Your task to perform on an android device: change notification settings in the gmail app Image 0: 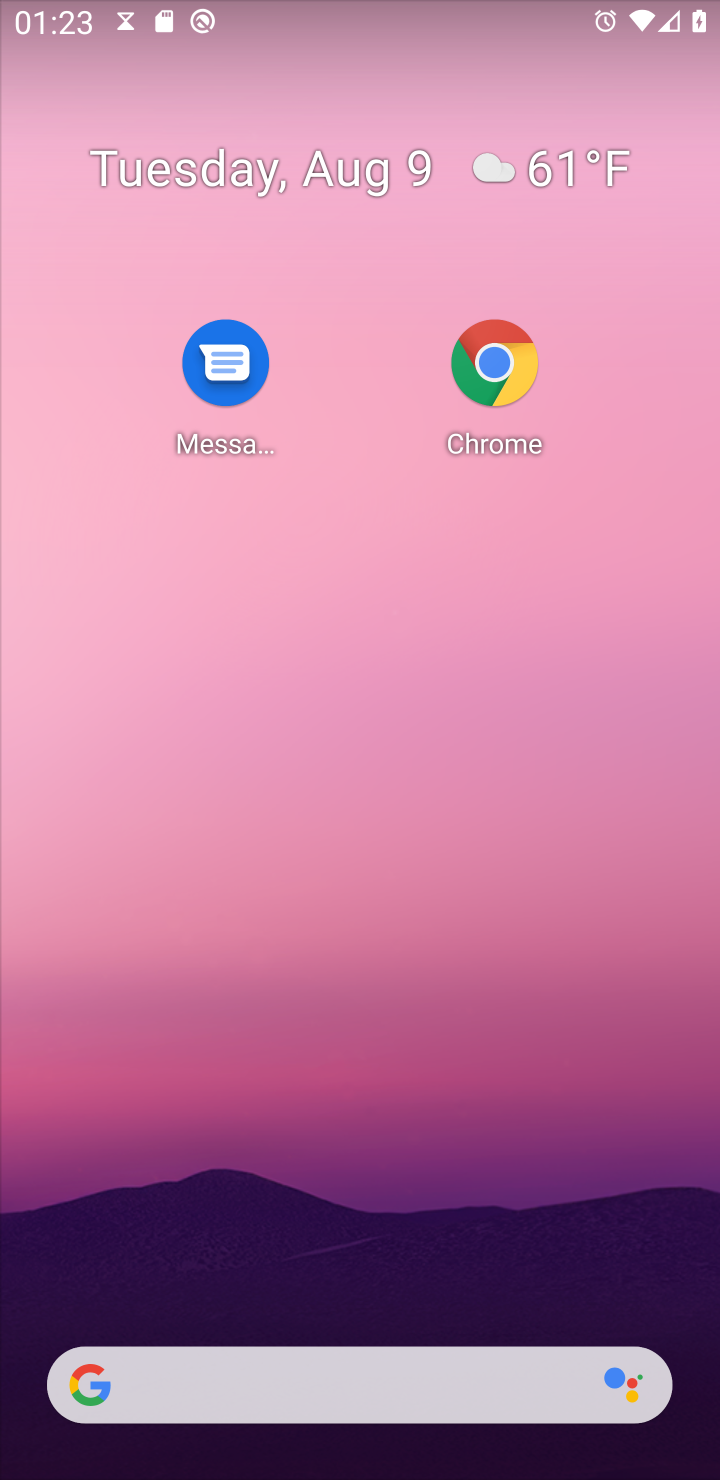
Step 0: drag from (247, 1225) to (344, 140)
Your task to perform on an android device: change notification settings in the gmail app Image 1: 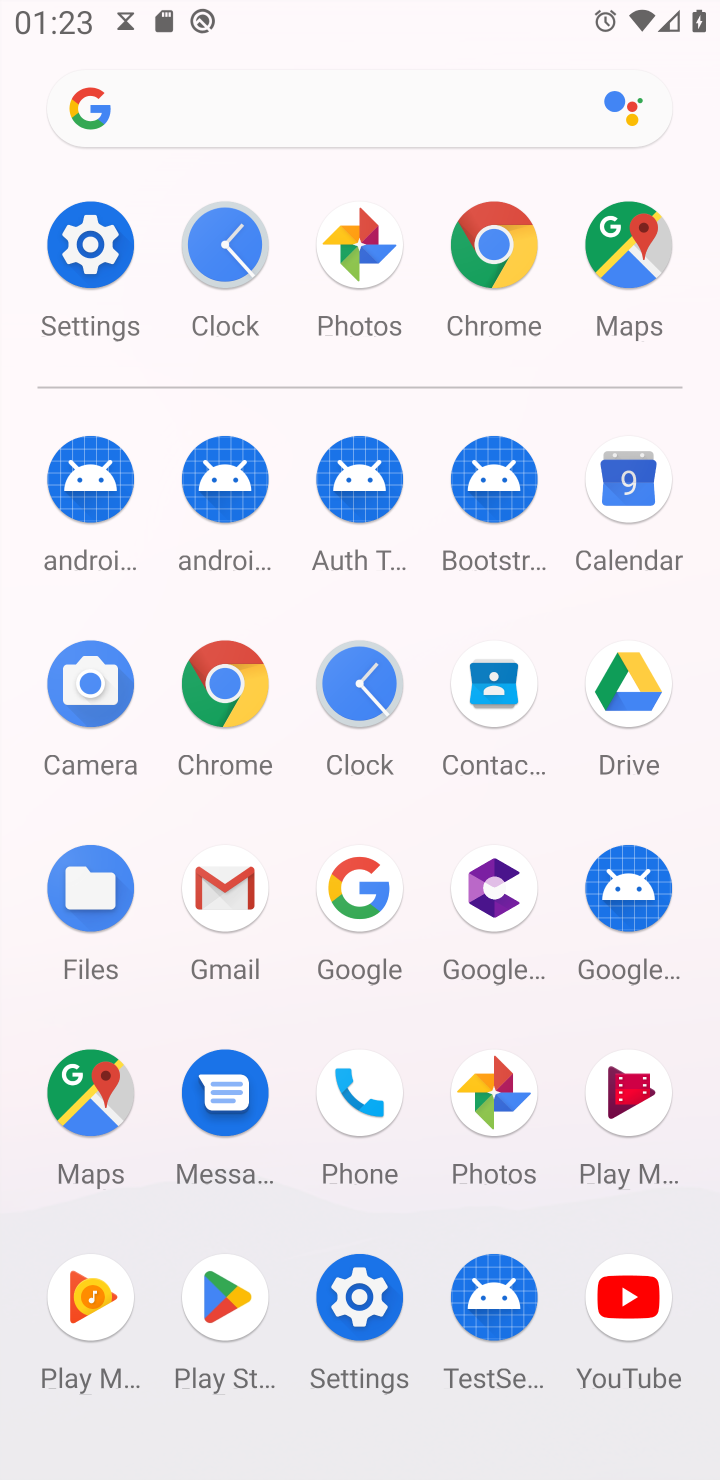
Step 1: click (117, 274)
Your task to perform on an android device: change notification settings in the gmail app Image 2: 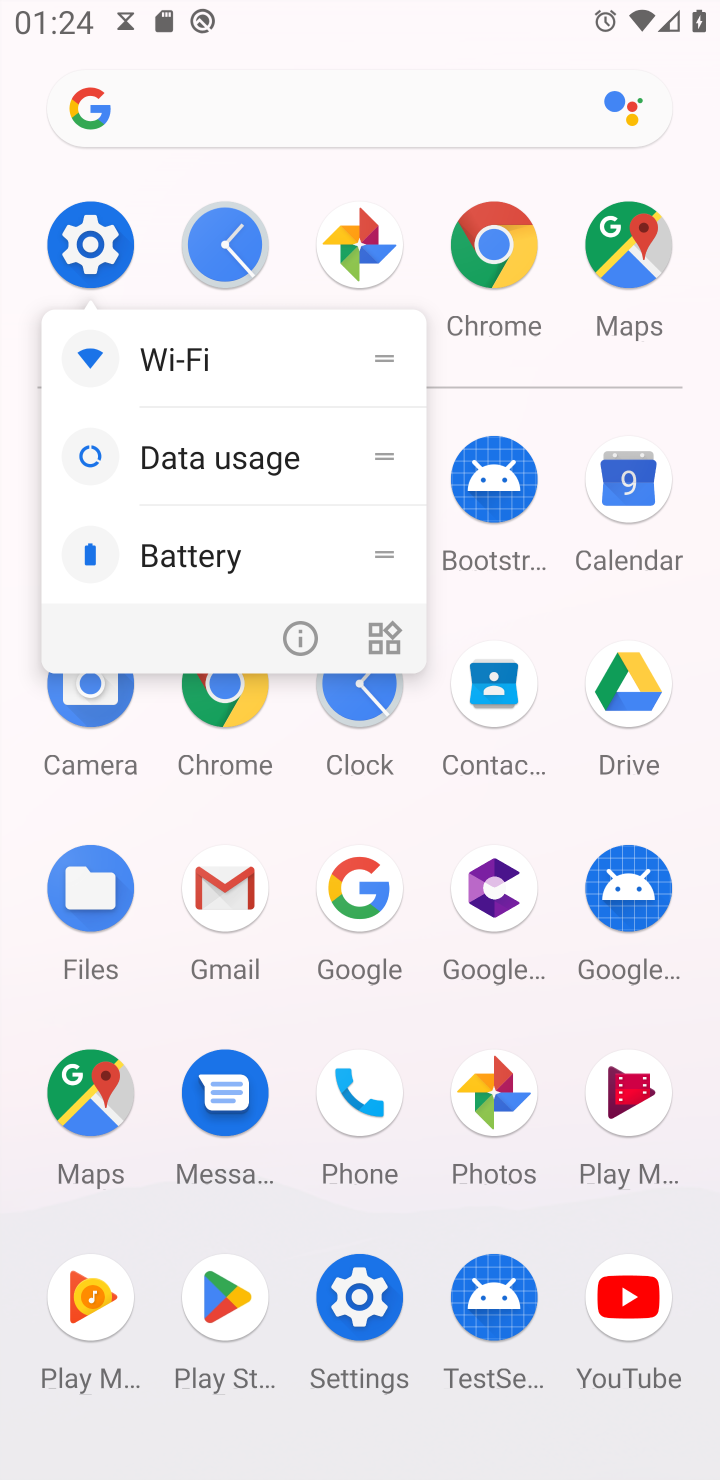
Step 2: click (99, 256)
Your task to perform on an android device: change notification settings in the gmail app Image 3: 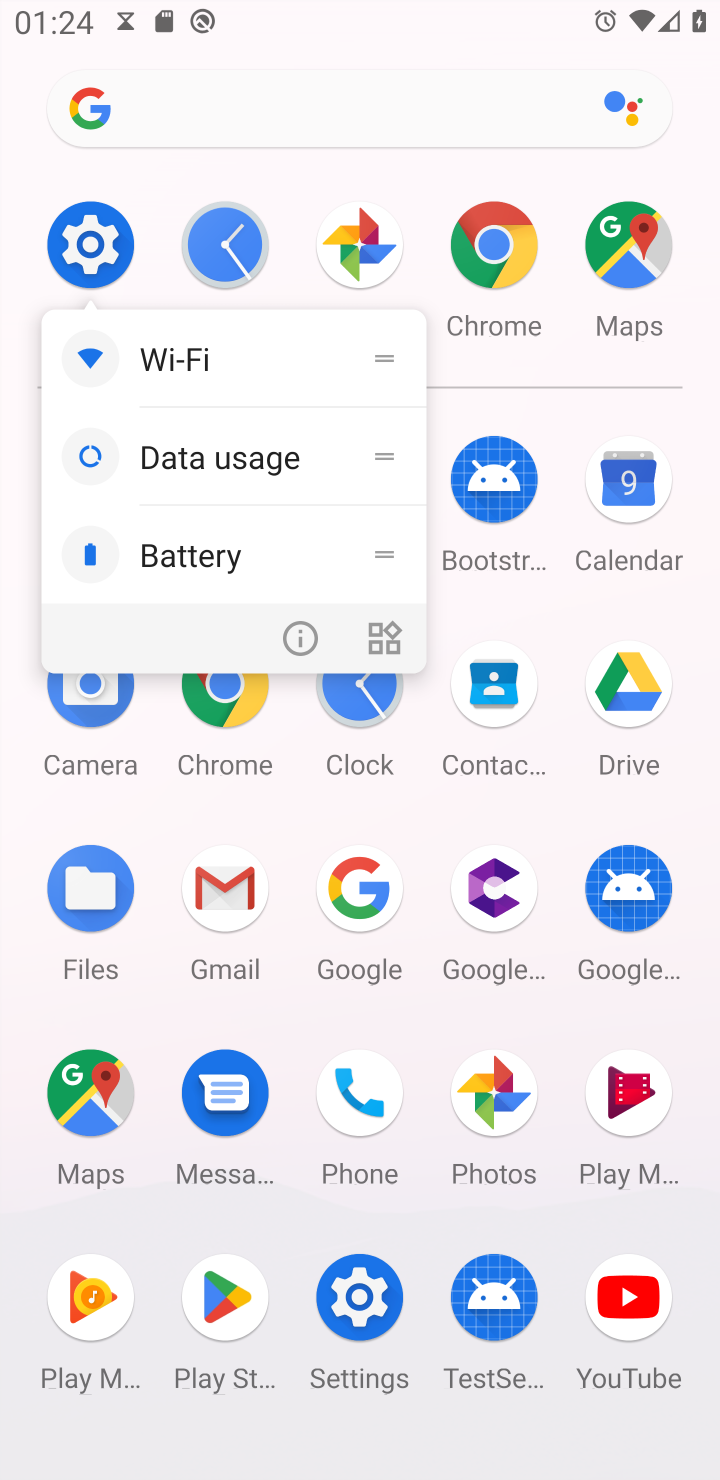
Step 3: click (77, 226)
Your task to perform on an android device: change notification settings in the gmail app Image 4: 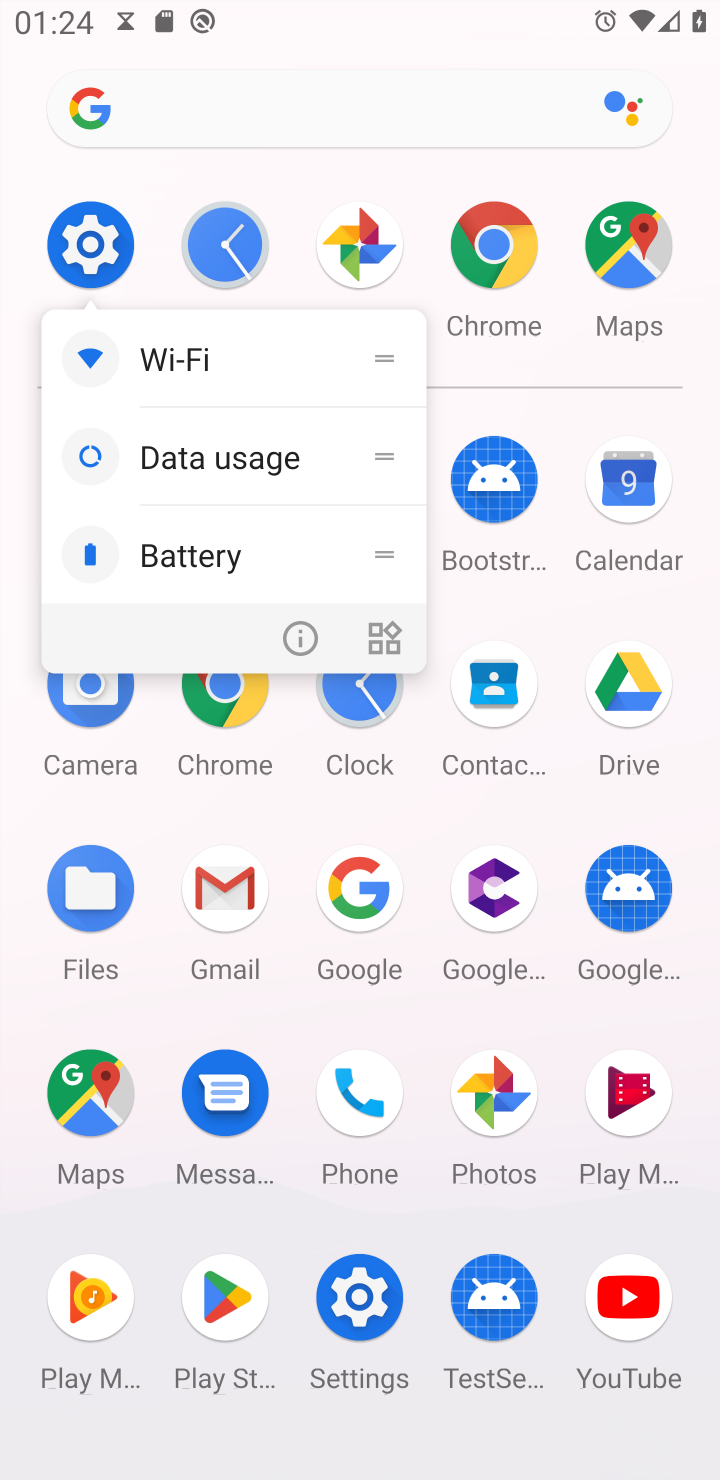
Step 4: click (77, 226)
Your task to perform on an android device: change notification settings in the gmail app Image 5: 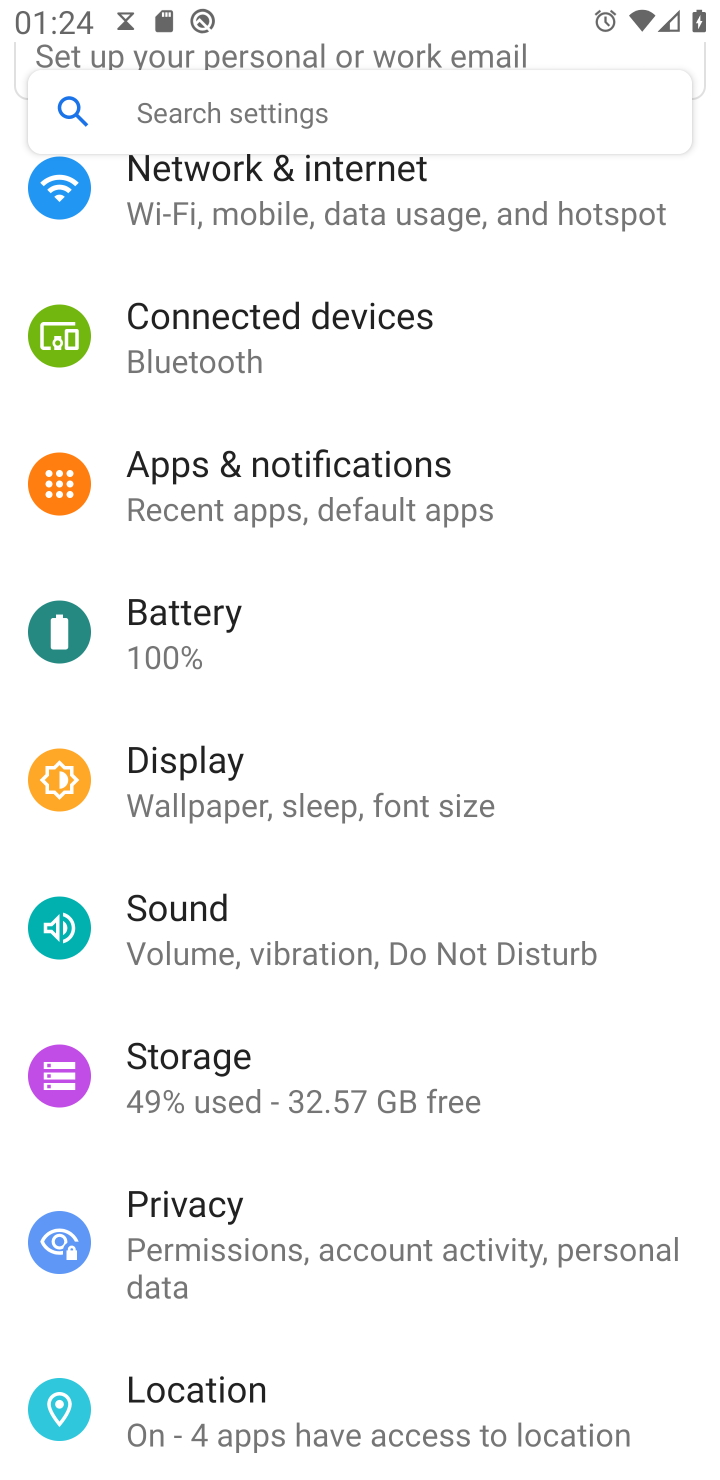
Step 5: click (273, 431)
Your task to perform on an android device: change notification settings in the gmail app Image 6: 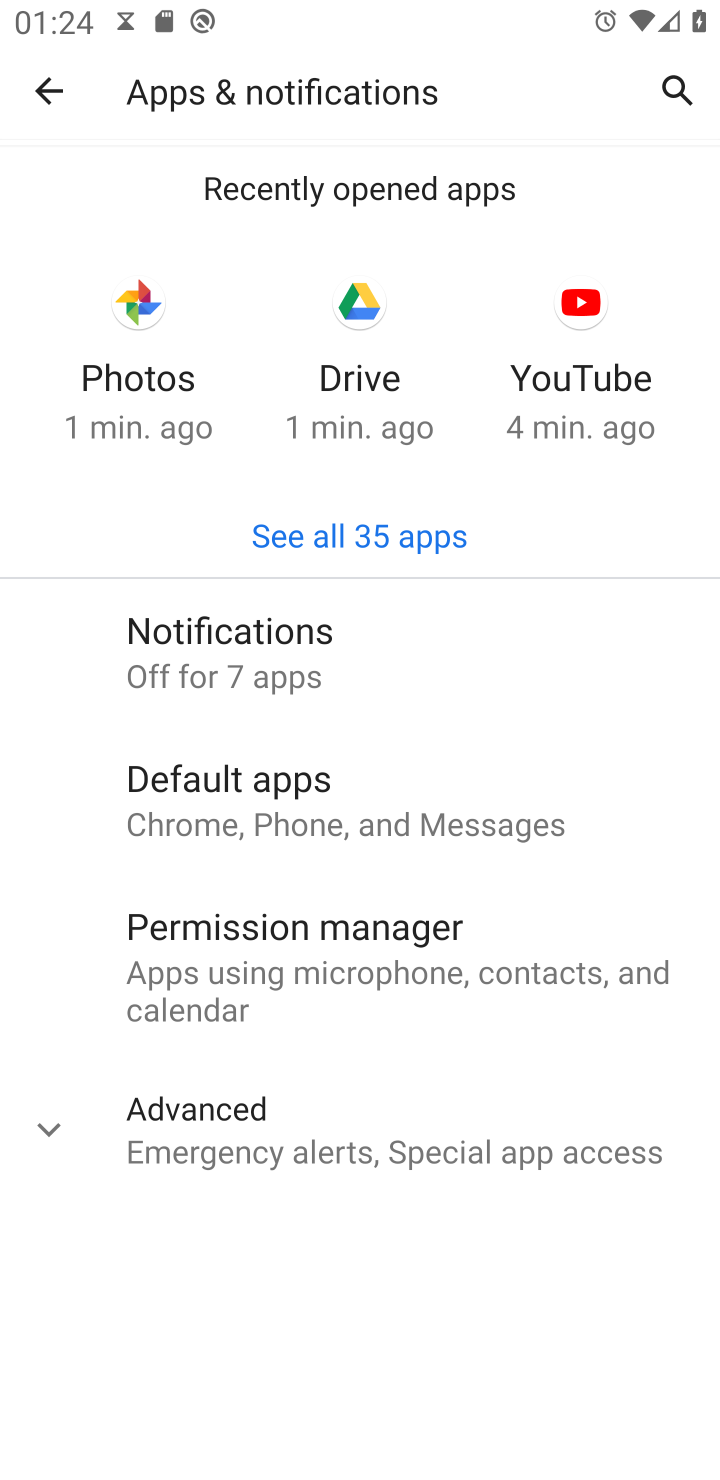
Step 6: click (327, 605)
Your task to perform on an android device: change notification settings in the gmail app Image 7: 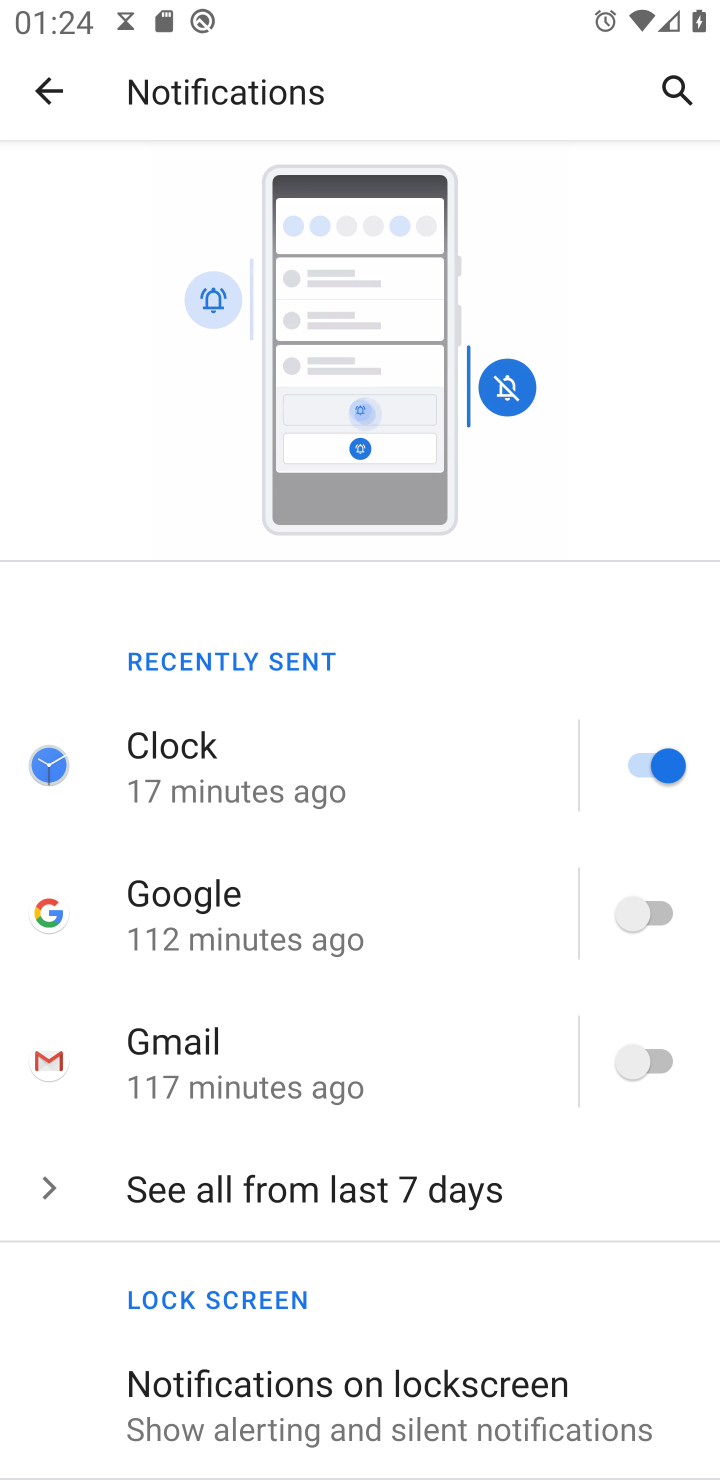
Step 7: click (301, 1184)
Your task to perform on an android device: change notification settings in the gmail app Image 8: 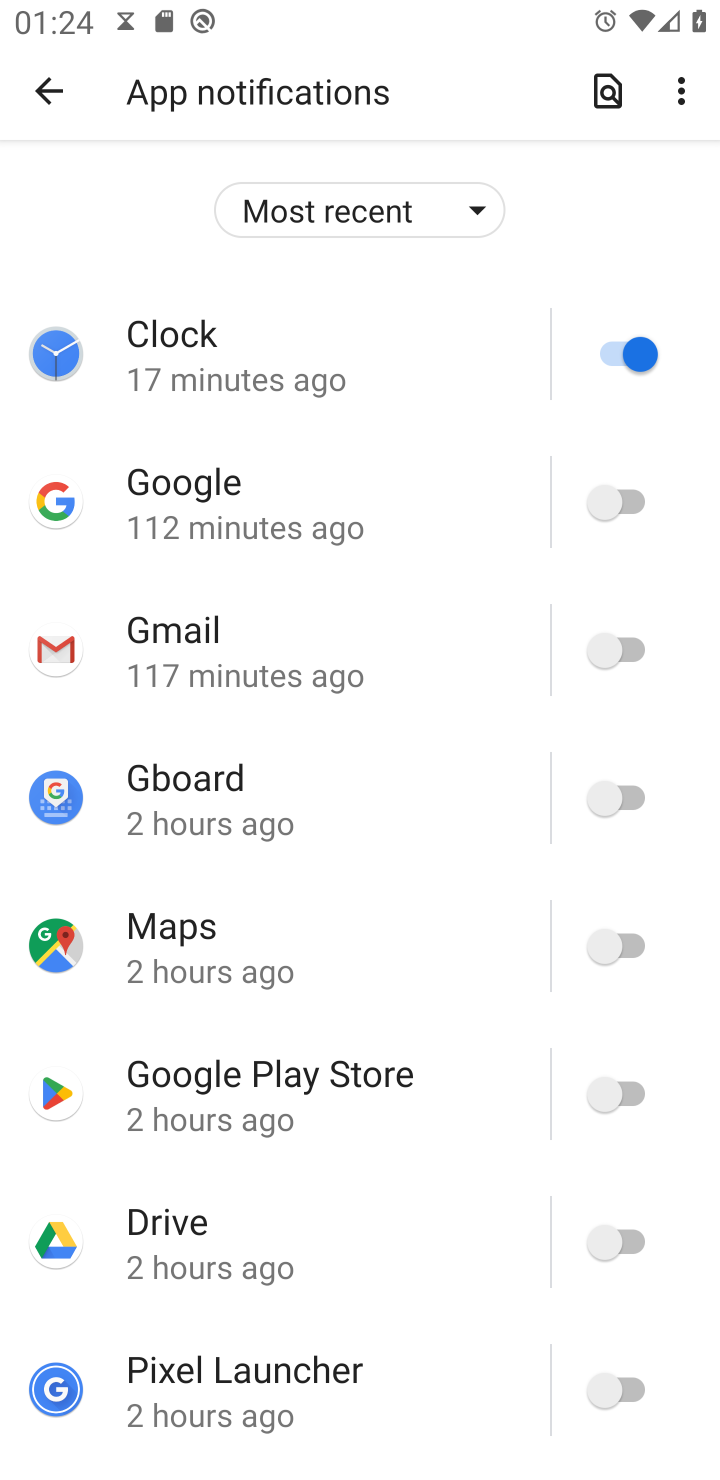
Step 8: click (631, 343)
Your task to perform on an android device: change notification settings in the gmail app Image 9: 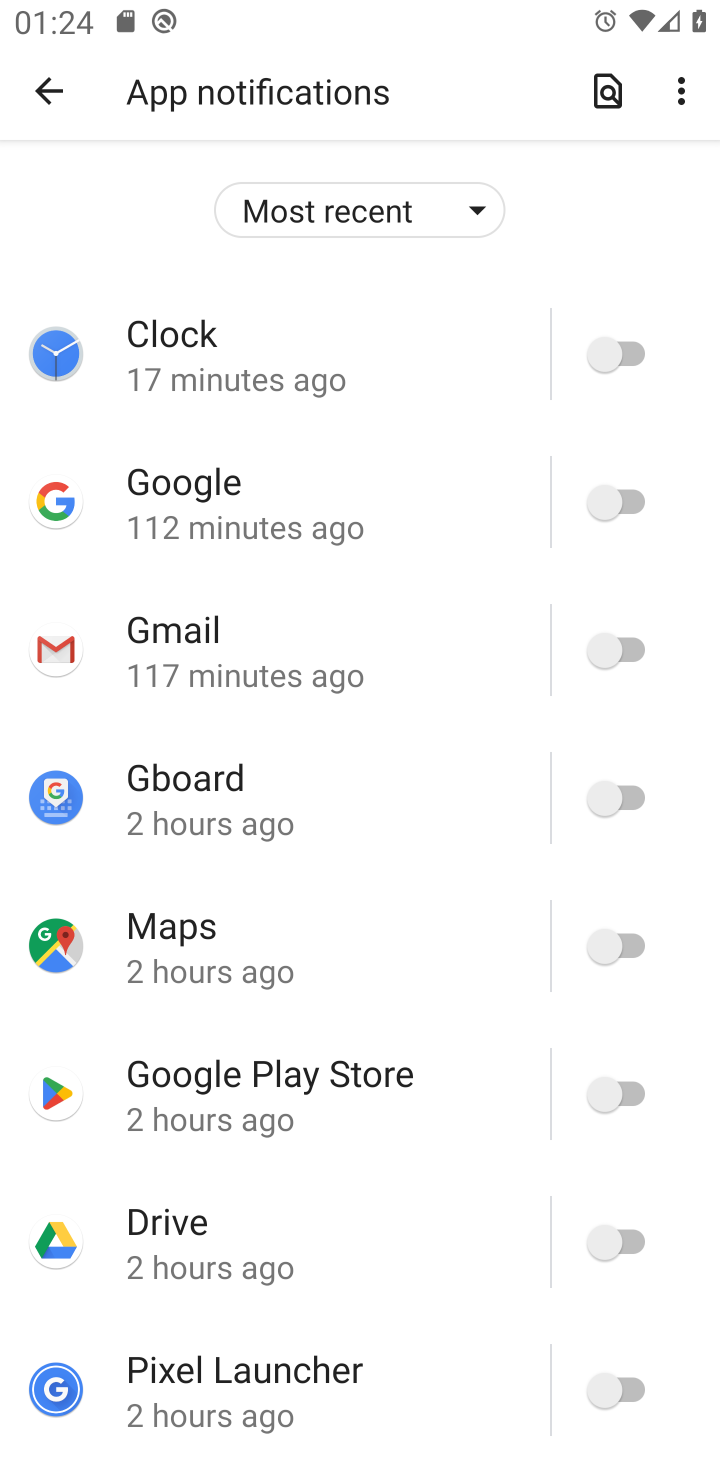
Step 9: click (627, 500)
Your task to perform on an android device: change notification settings in the gmail app Image 10: 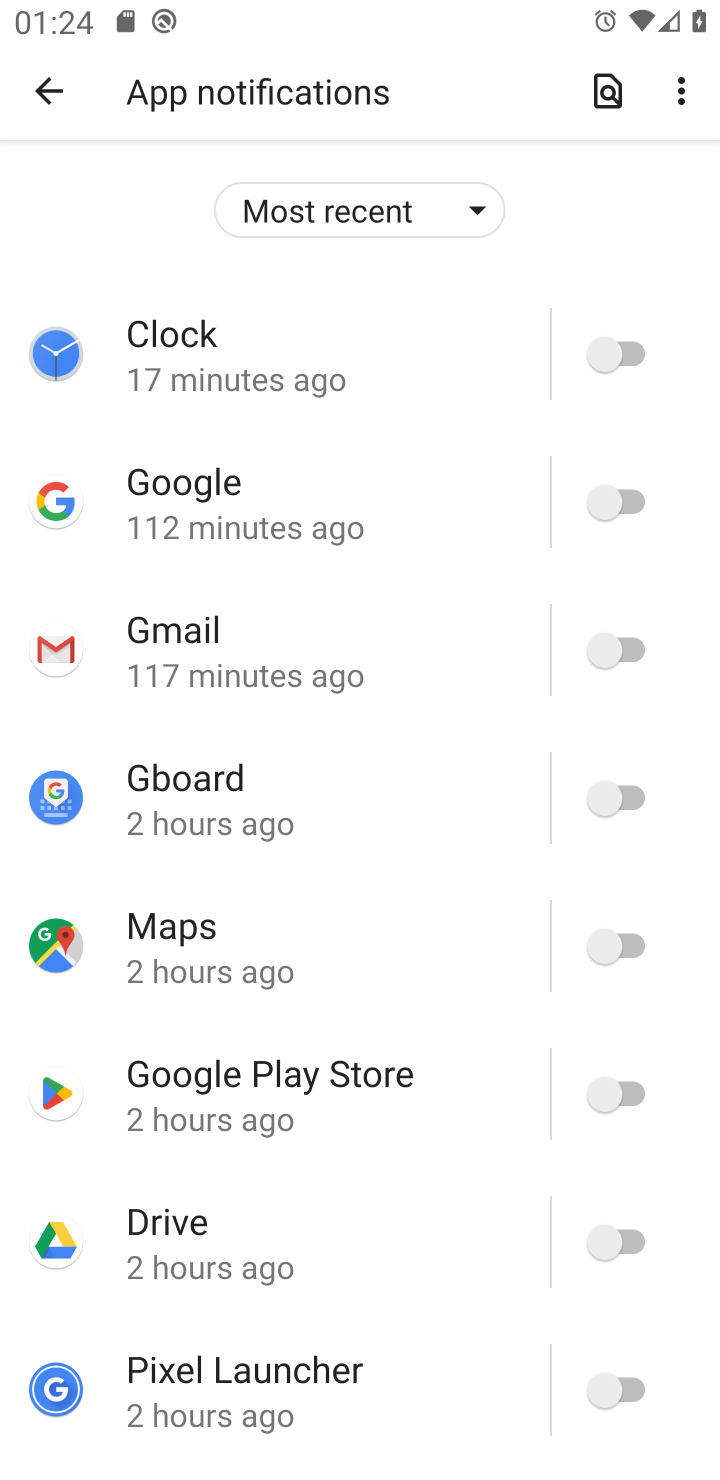
Step 10: click (635, 632)
Your task to perform on an android device: change notification settings in the gmail app Image 11: 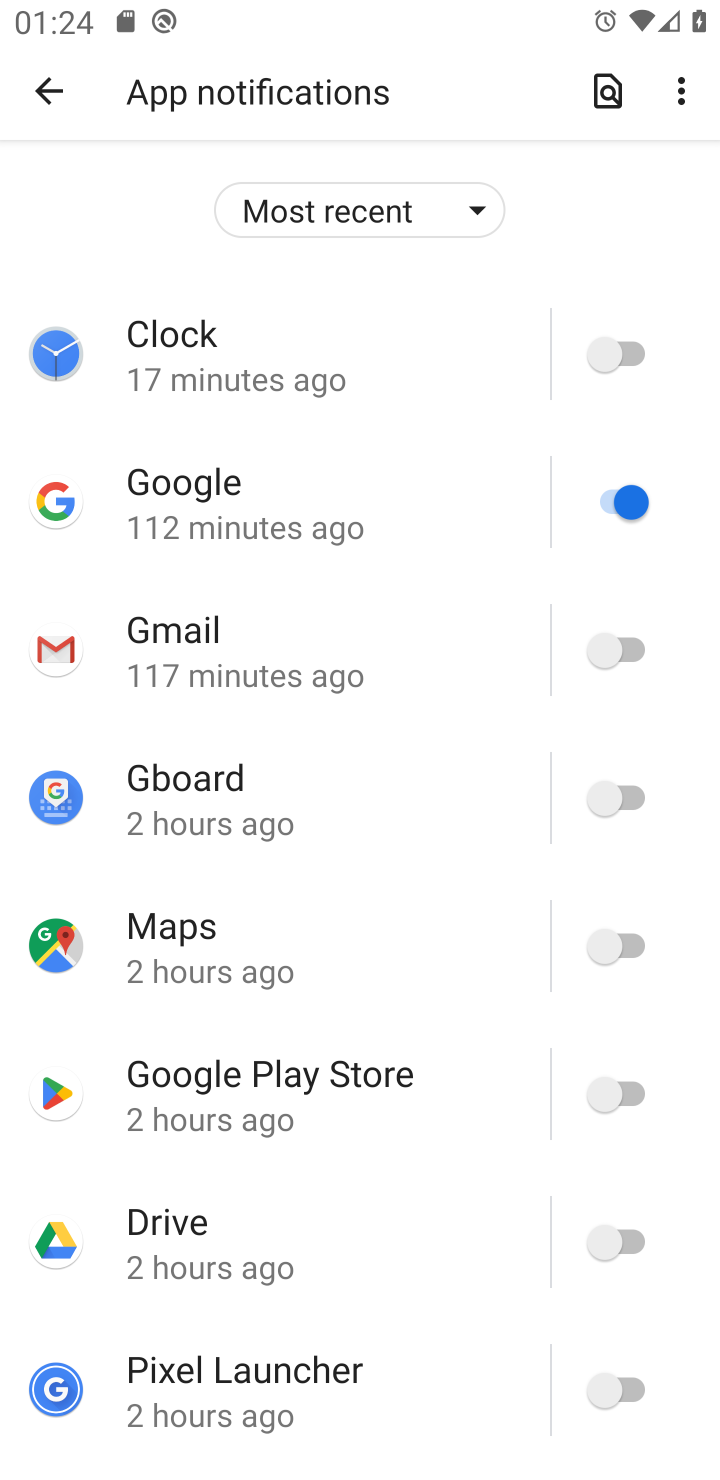
Step 11: click (640, 801)
Your task to perform on an android device: change notification settings in the gmail app Image 12: 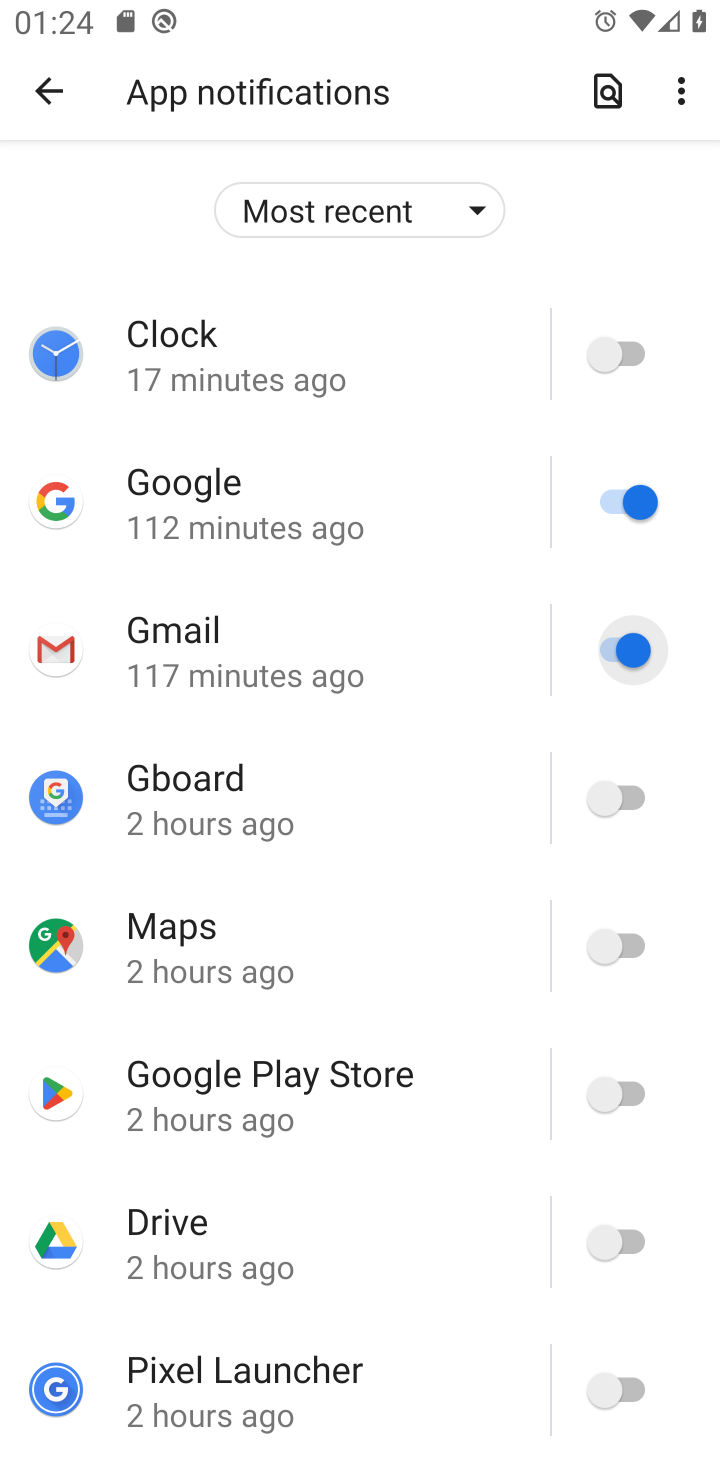
Step 12: click (635, 957)
Your task to perform on an android device: change notification settings in the gmail app Image 13: 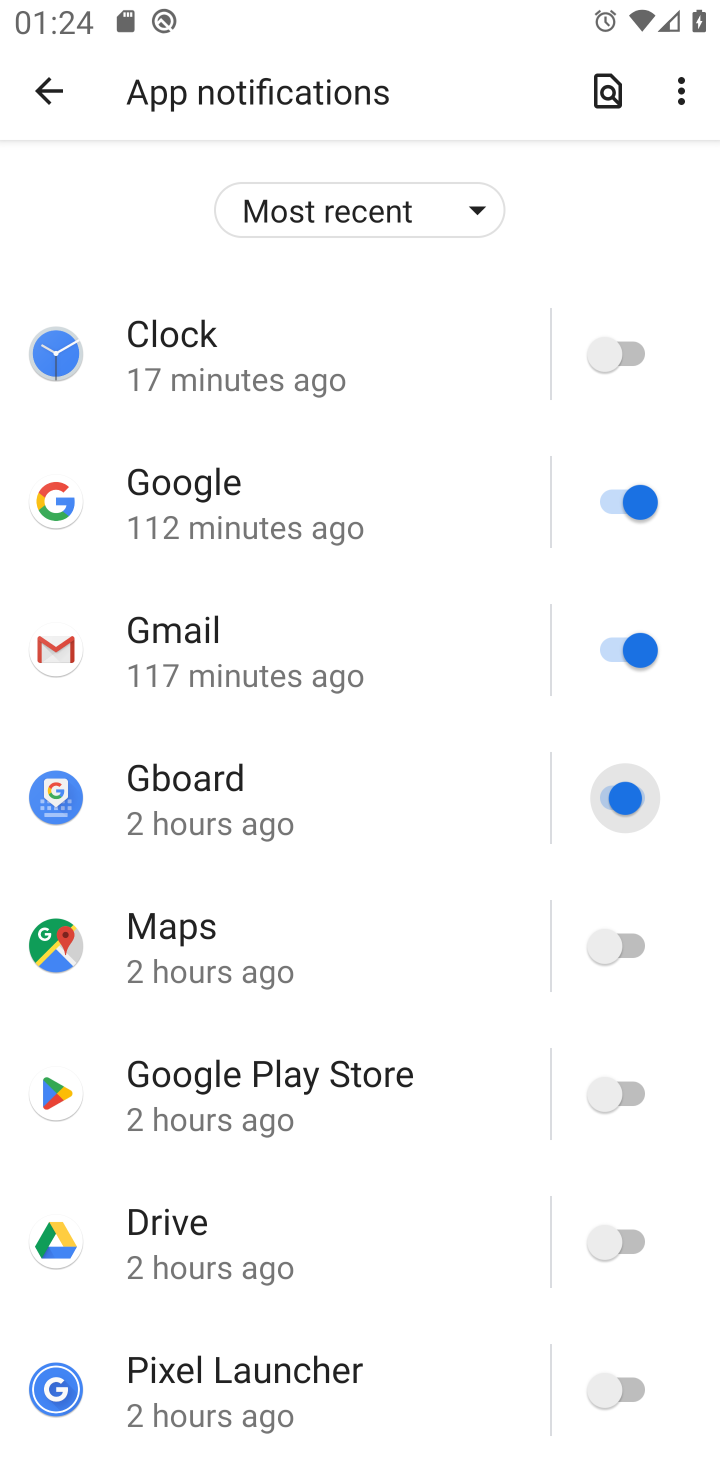
Step 13: click (624, 1057)
Your task to perform on an android device: change notification settings in the gmail app Image 14: 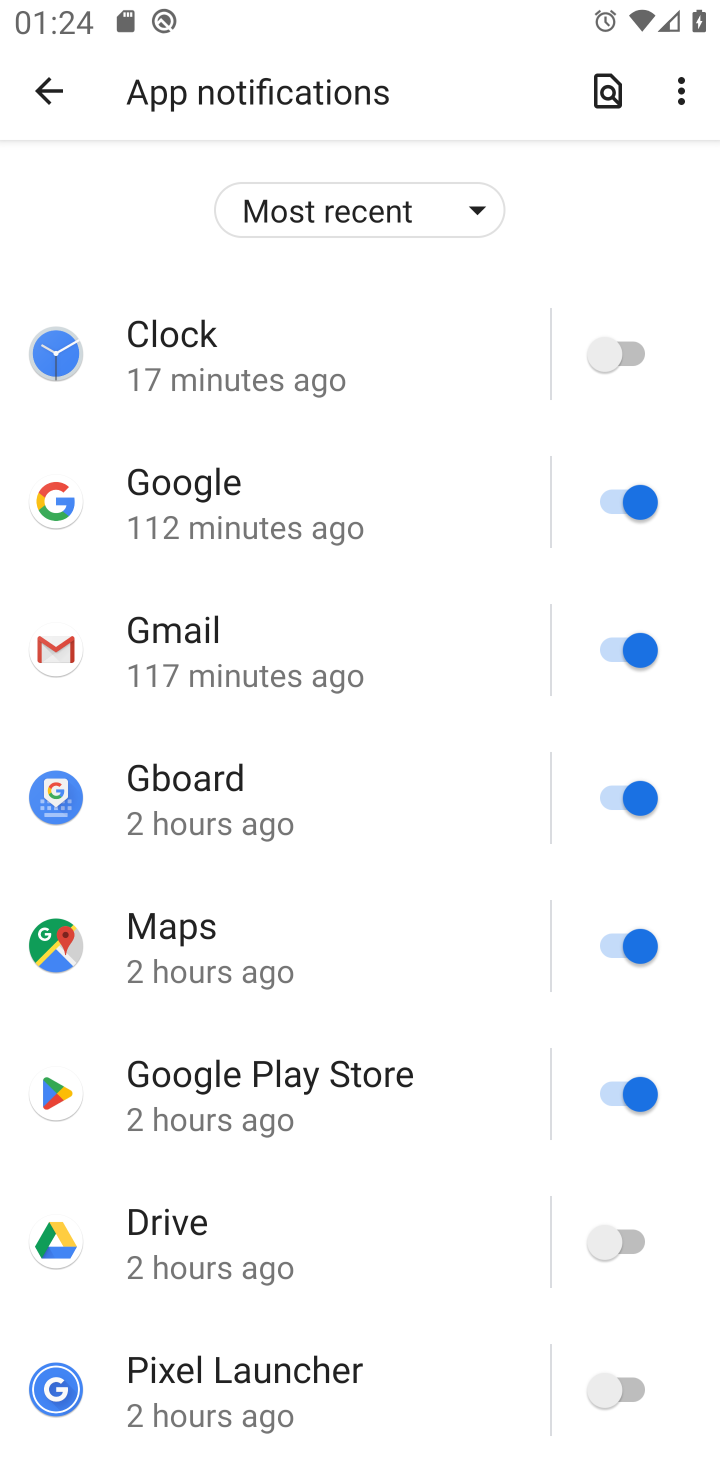
Step 14: click (587, 1231)
Your task to perform on an android device: change notification settings in the gmail app Image 15: 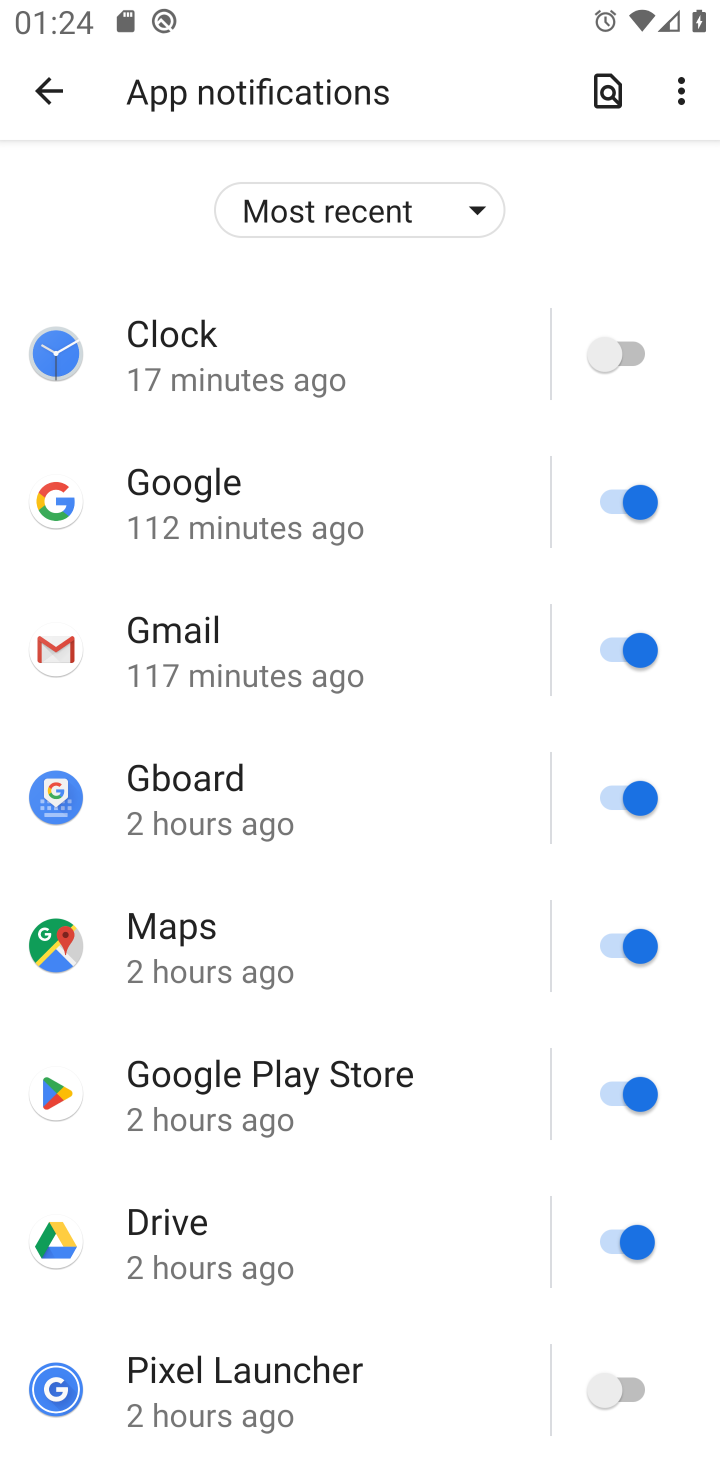
Step 15: drag from (301, 1379) to (396, 324)
Your task to perform on an android device: change notification settings in the gmail app Image 16: 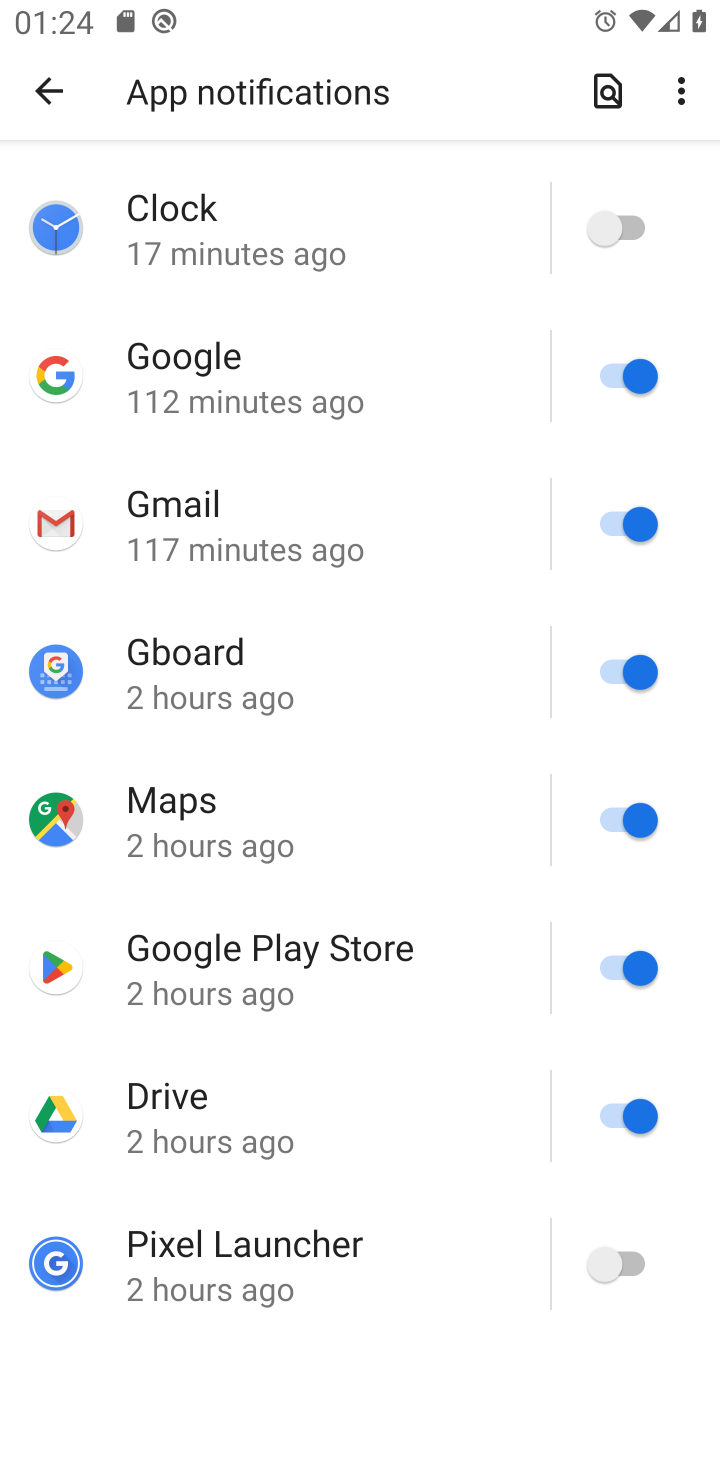
Step 16: click (600, 1257)
Your task to perform on an android device: change notification settings in the gmail app Image 17: 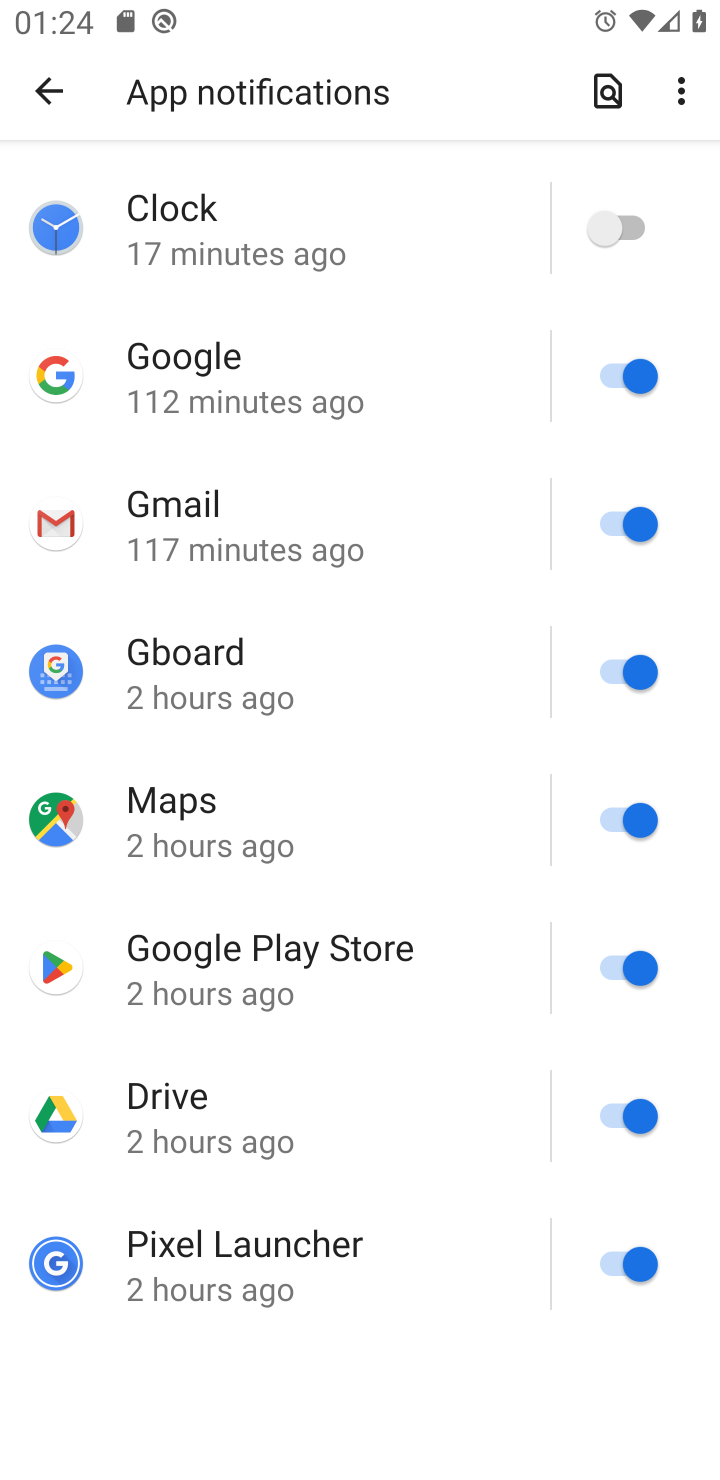
Step 17: task complete